Your task to perform on an android device: Show me popular games on the Play Store Image 0: 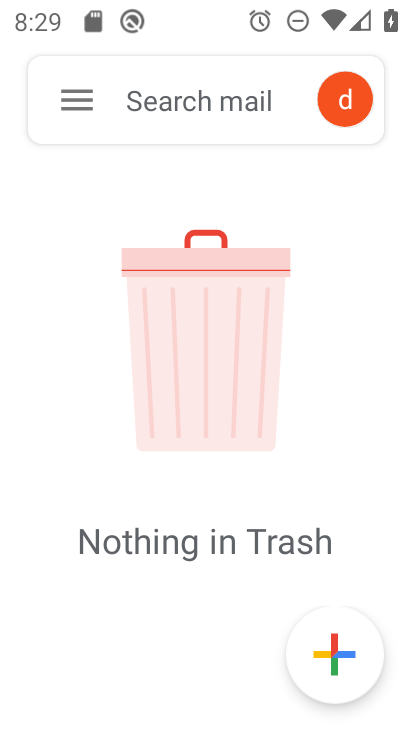
Step 0: press home button
Your task to perform on an android device: Show me popular games on the Play Store Image 1: 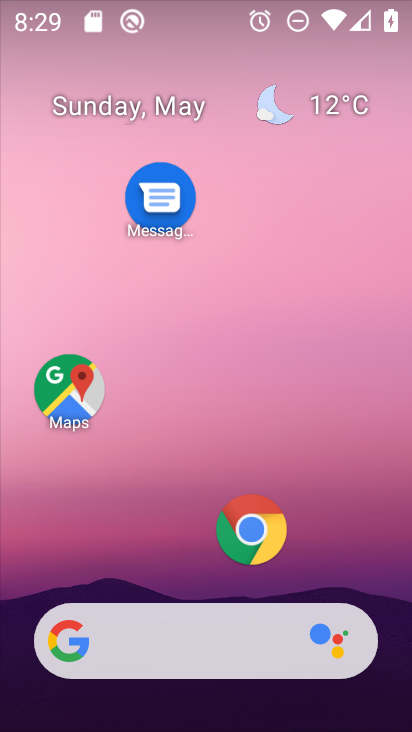
Step 1: drag from (183, 582) to (246, 81)
Your task to perform on an android device: Show me popular games on the Play Store Image 2: 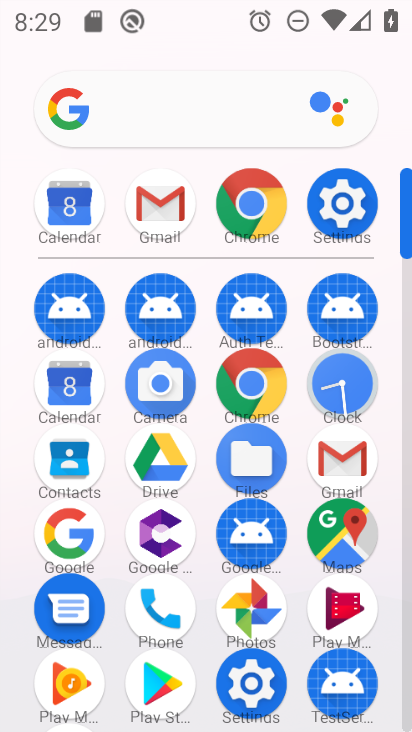
Step 2: click (155, 680)
Your task to perform on an android device: Show me popular games on the Play Store Image 3: 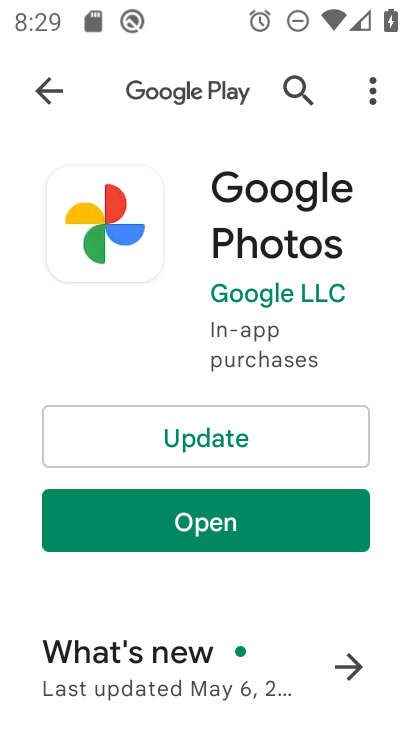
Step 3: click (43, 93)
Your task to perform on an android device: Show me popular games on the Play Store Image 4: 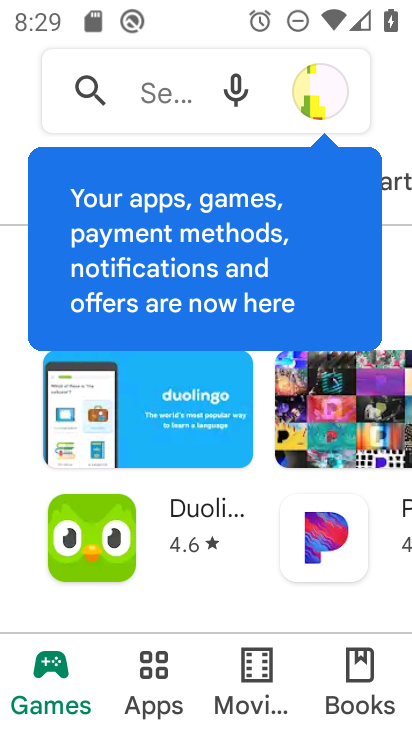
Step 4: drag from (171, 499) to (193, 194)
Your task to perform on an android device: Show me popular games on the Play Store Image 5: 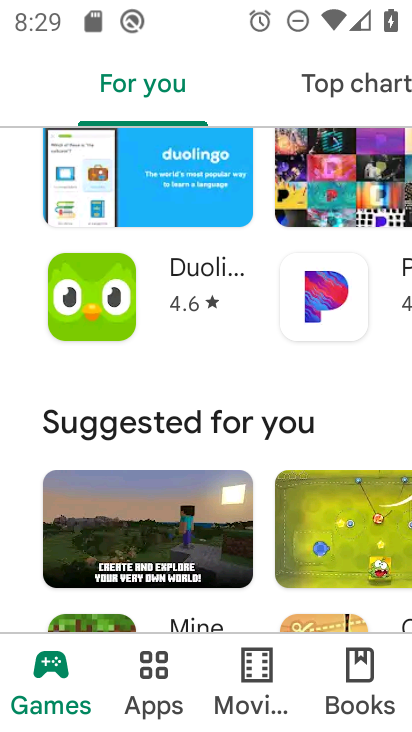
Step 5: drag from (203, 547) to (227, 165)
Your task to perform on an android device: Show me popular games on the Play Store Image 6: 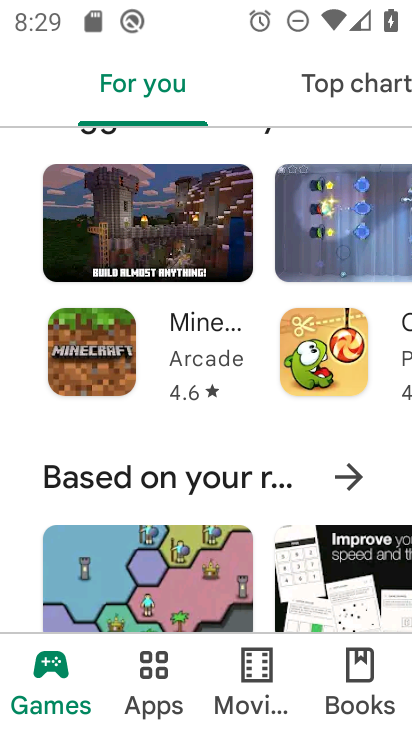
Step 6: drag from (218, 520) to (204, 157)
Your task to perform on an android device: Show me popular games on the Play Store Image 7: 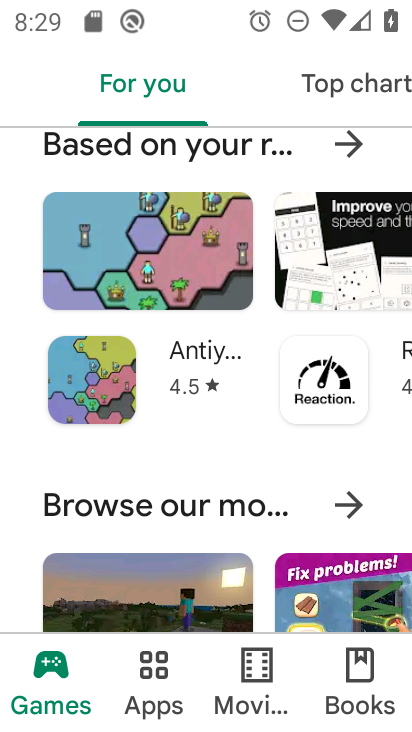
Step 7: click (350, 499)
Your task to perform on an android device: Show me popular games on the Play Store Image 8: 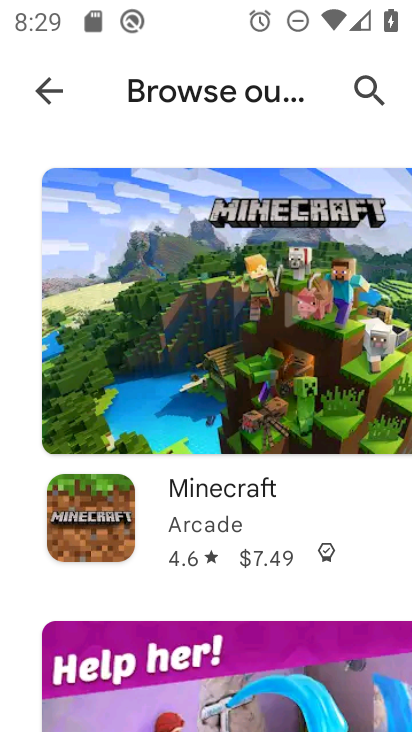
Step 8: task complete